Your task to perform on an android device: Set the phone to "Do not disturb". Image 0: 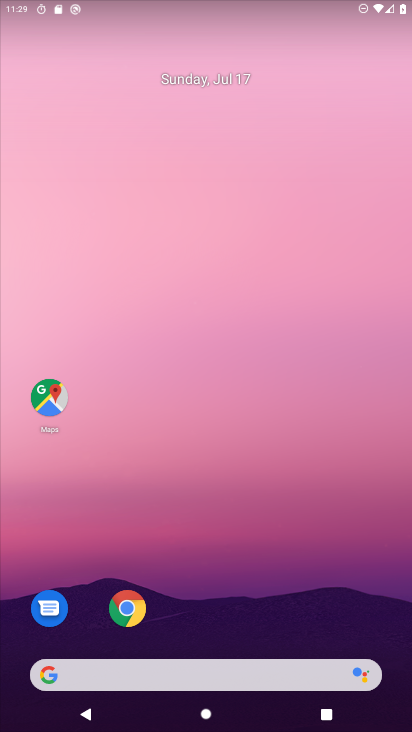
Step 0: drag from (301, 623) to (239, 23)
Your task to perform on an android device: Set the phone to "Do not disturb". Image 1: 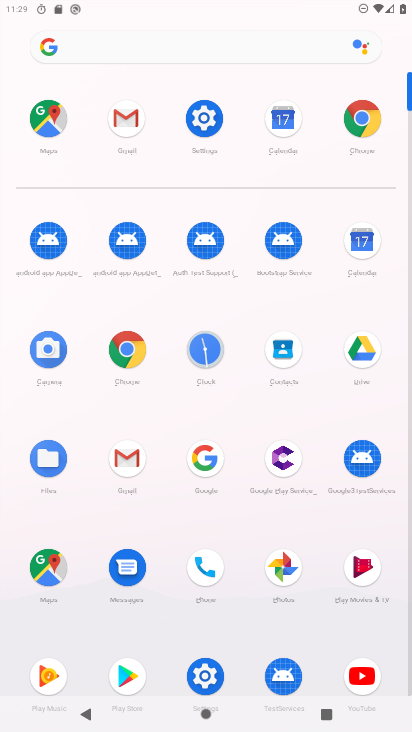
Step 1: click (202, 104)
Your task to perform on an android device: Set the phone to "Do not disturb". Image 2: 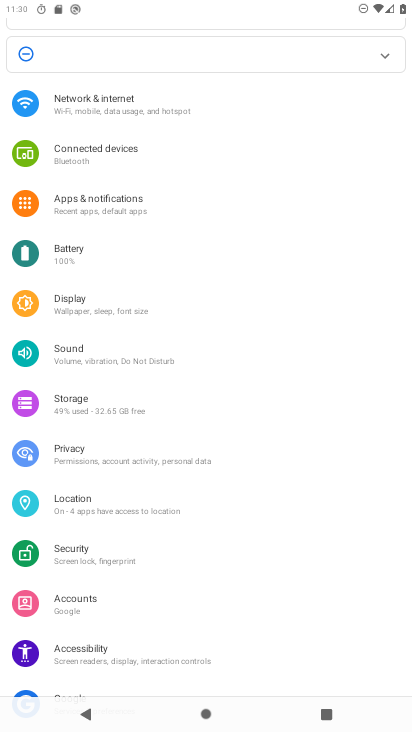
Step 2: click (95, 362)
Your task to perform on an android device: Set the phone to "Do not disturb". Image 3: 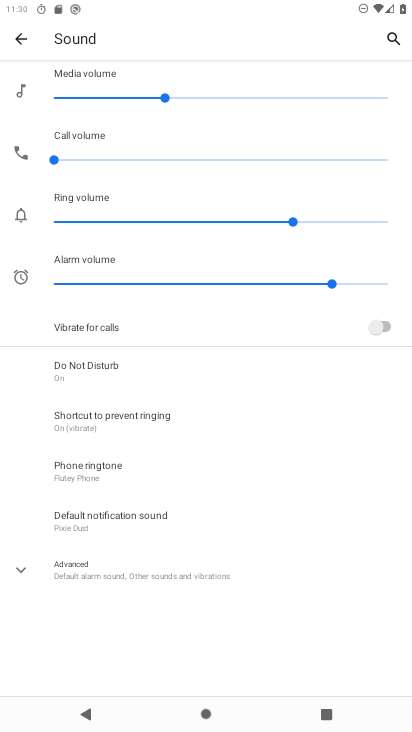
Step 3: click (82, 376)
Your task to perform on an android device: Set the phone to "Do not disturb". Image 4: 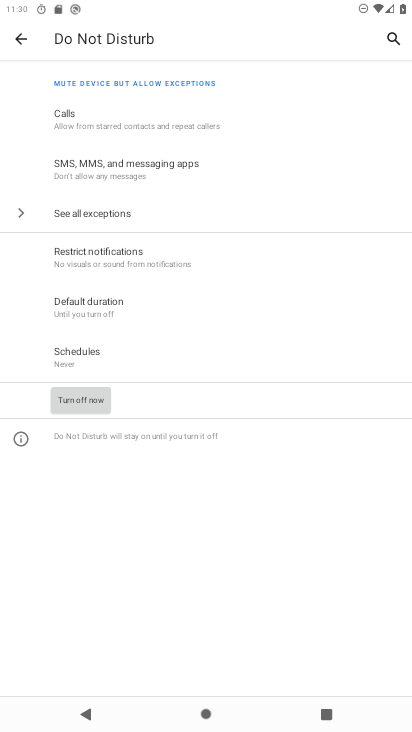
Step 4: task complete